Your task to perform on an android device: Search for rayovac triple a on ebay.com, select the first entry, add it to the cart, then select checkout. Image 0: 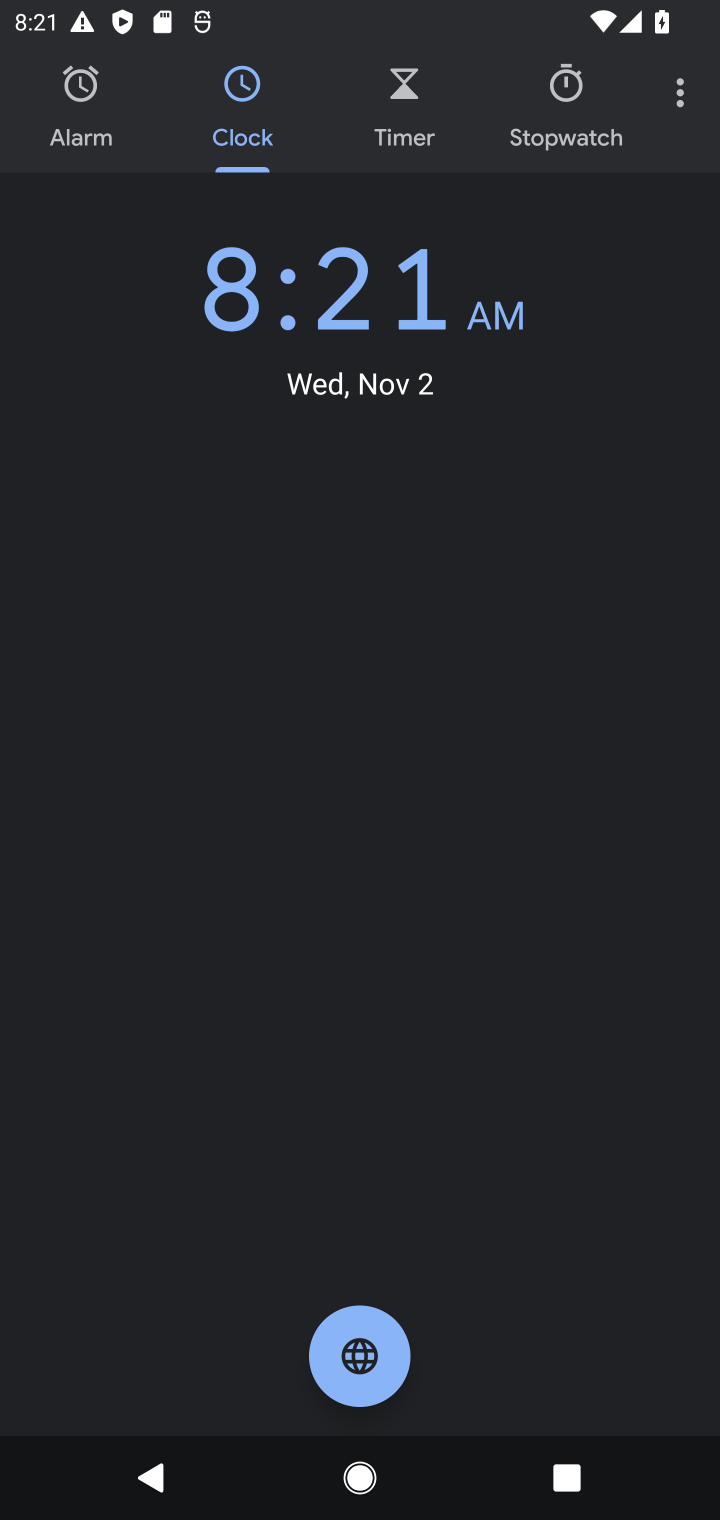
Step 0: press home button
Your task to perform on an android device: Search for rayovac triple a on ebay.com, select the first entry, add it to the cart, then select checkout. Image 1: 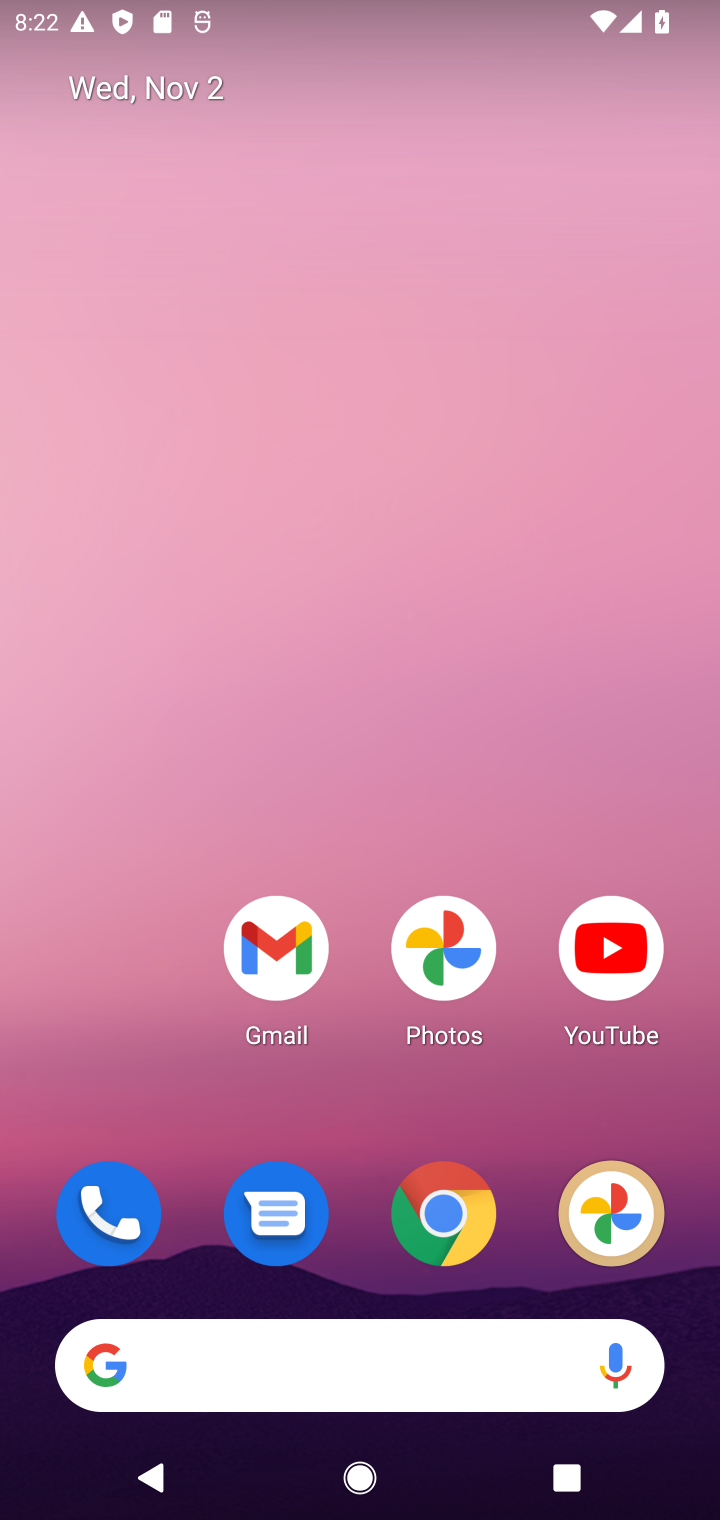
Step 1: click (439, 1225)
Your task to perform on an android device: Search for rayovac triple a on ebay.com, select the first entry, add it to the cart, then select checkout. Image 2: 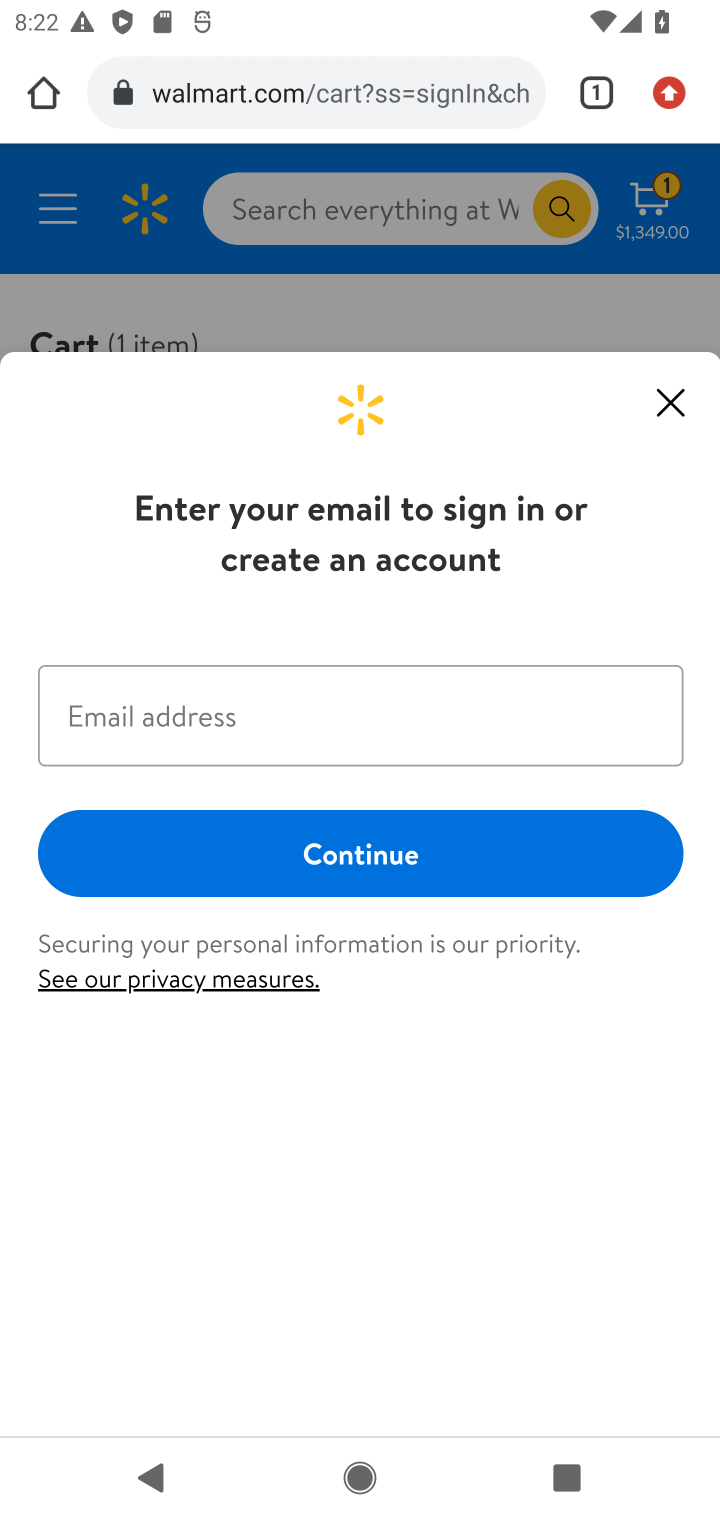
Step 2: click (340, 97)
Your task to perform on an android device: Search for rayovac triple a on ebay.com, select the first entry, add it to the cart, then select checkout. Image 3: 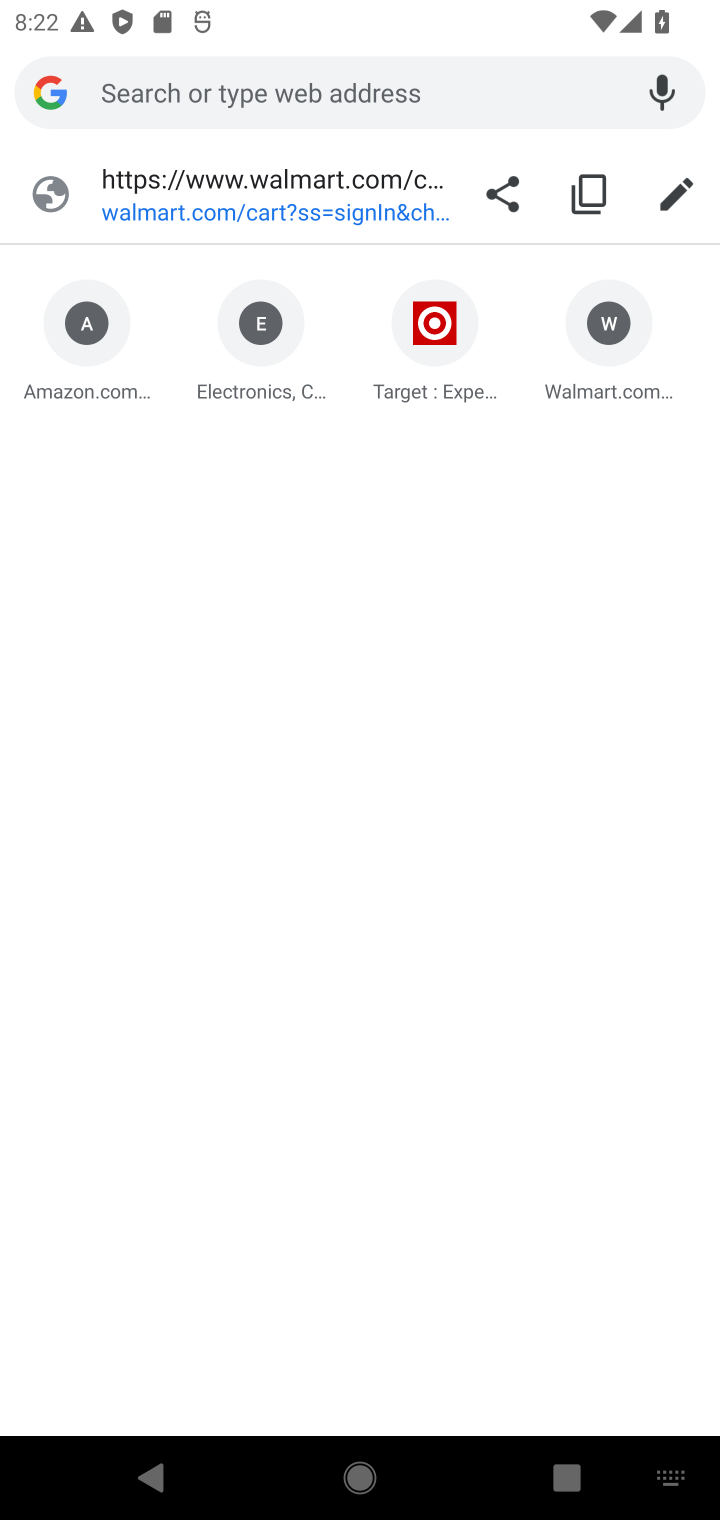
Step 3: type "ebay.com"
Your task to perform on an android device: Search for rayovac triple a on ebay.com, select the first entry, add it to the cart, then select checkout. Image 4: 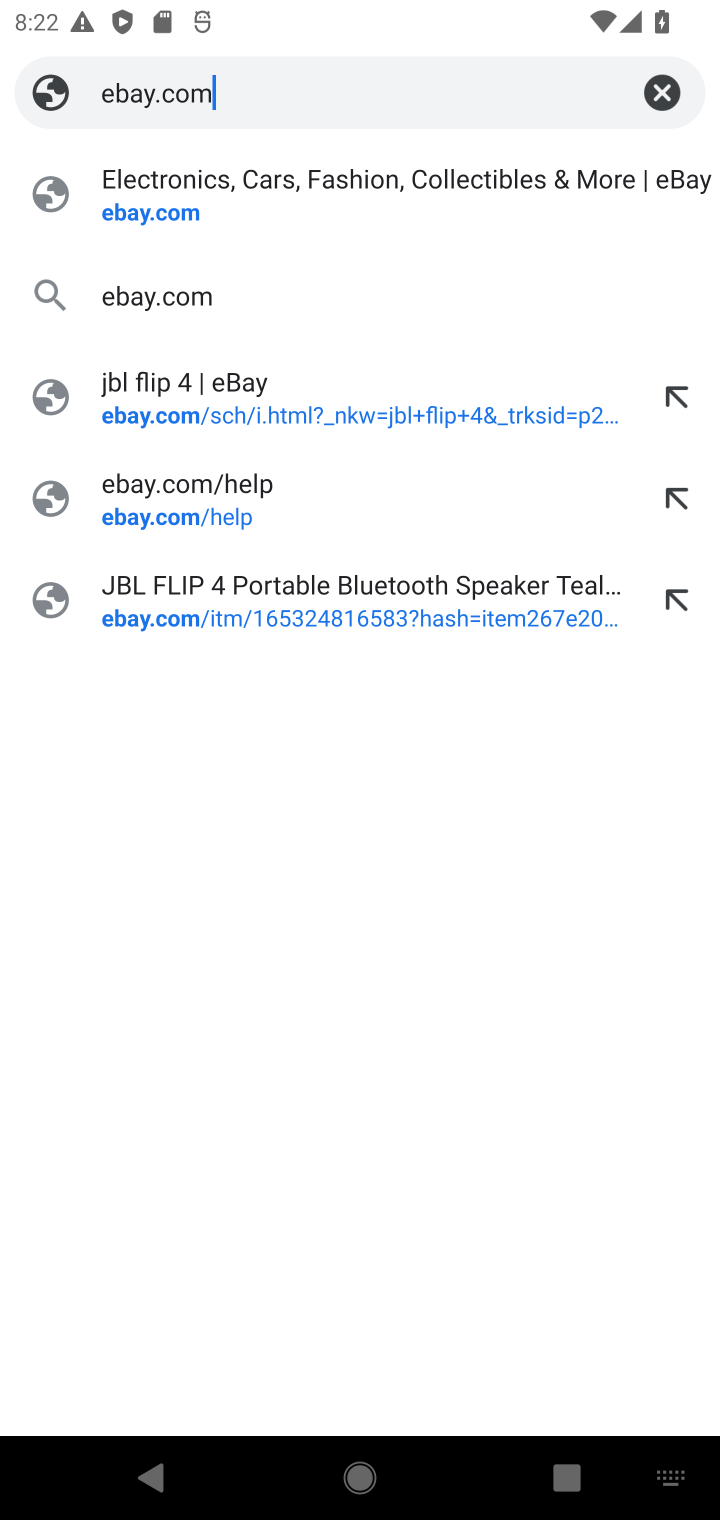
Step 4: click (126, 213)
Your task to perform on an android device: Search for rayovac triple a on ebay.com, select the first entry, add it to the cart, then select checkout. Image 5: 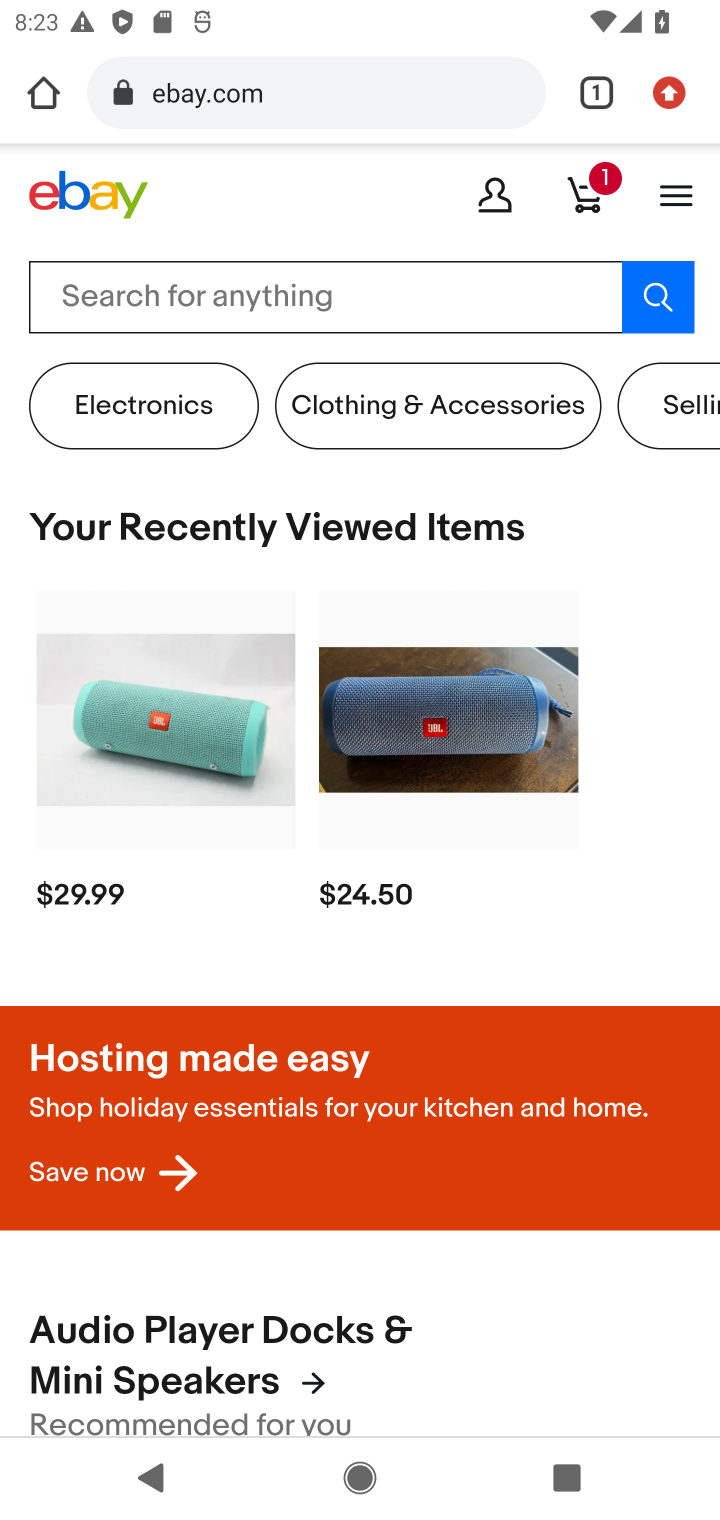
Step 5: click (241, 303)
Your task to perform on an android device: Search for rayovac triple a on ebay.com, select the first entry, add it to the cart, then select checkout. Image 6: 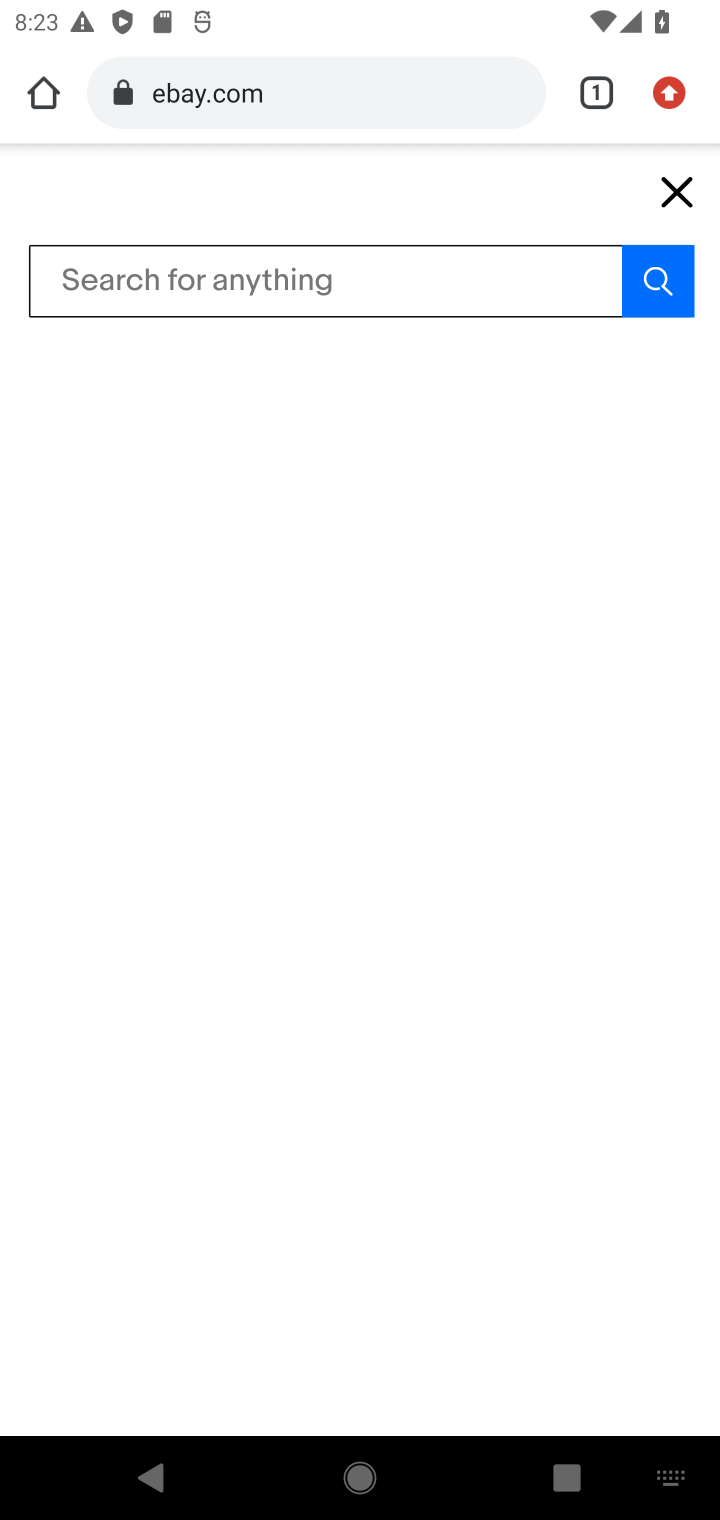
Step 6: type "rayovac triple a "
Your task to perform on an android device: Search for rayovac triple a on ebay.com, select the first entry, add it to the cart, then select checkout. Image 7: 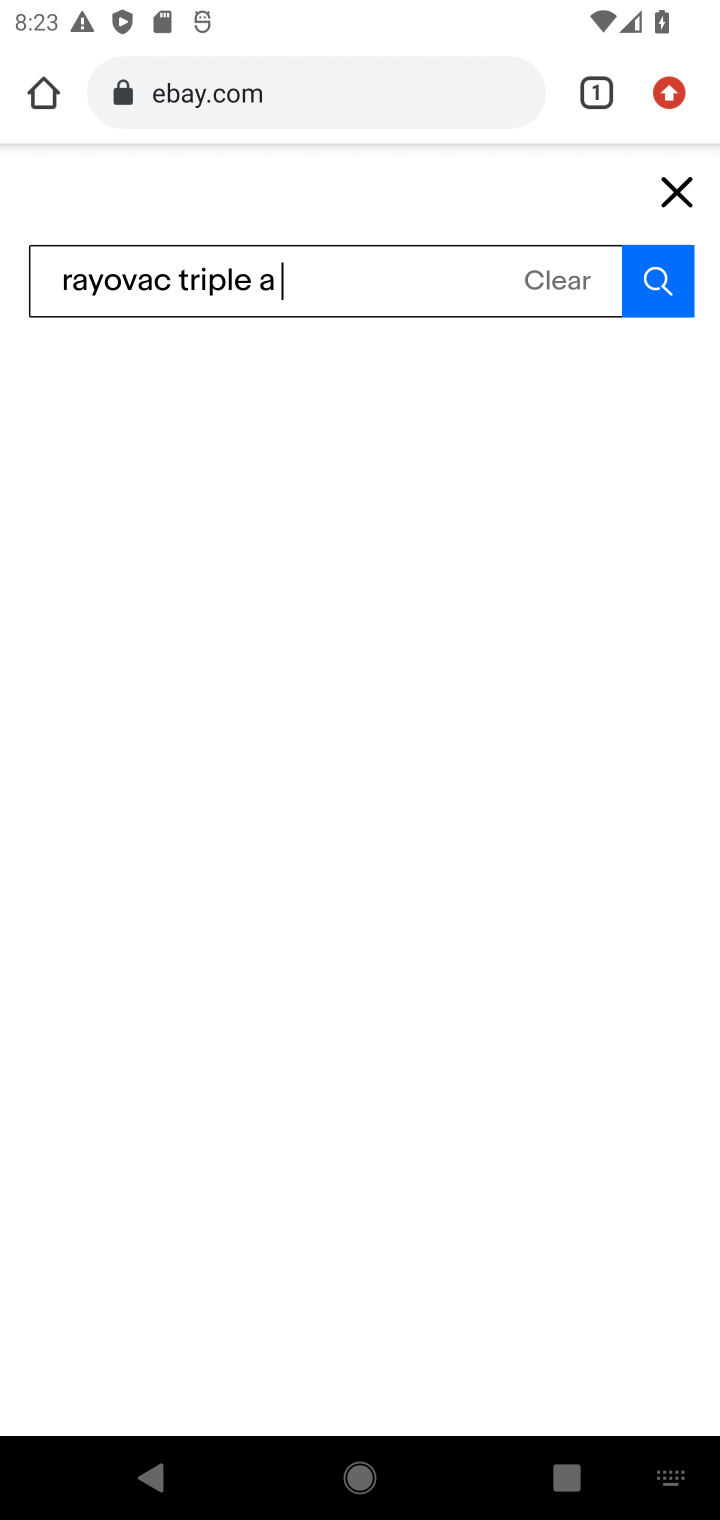
Step 7: click (654, 281)
Your task to perform on an android device: Search for rayovac triple a on ebay.com, select the first entry, add it to the cart, then select checkout. Image 8: 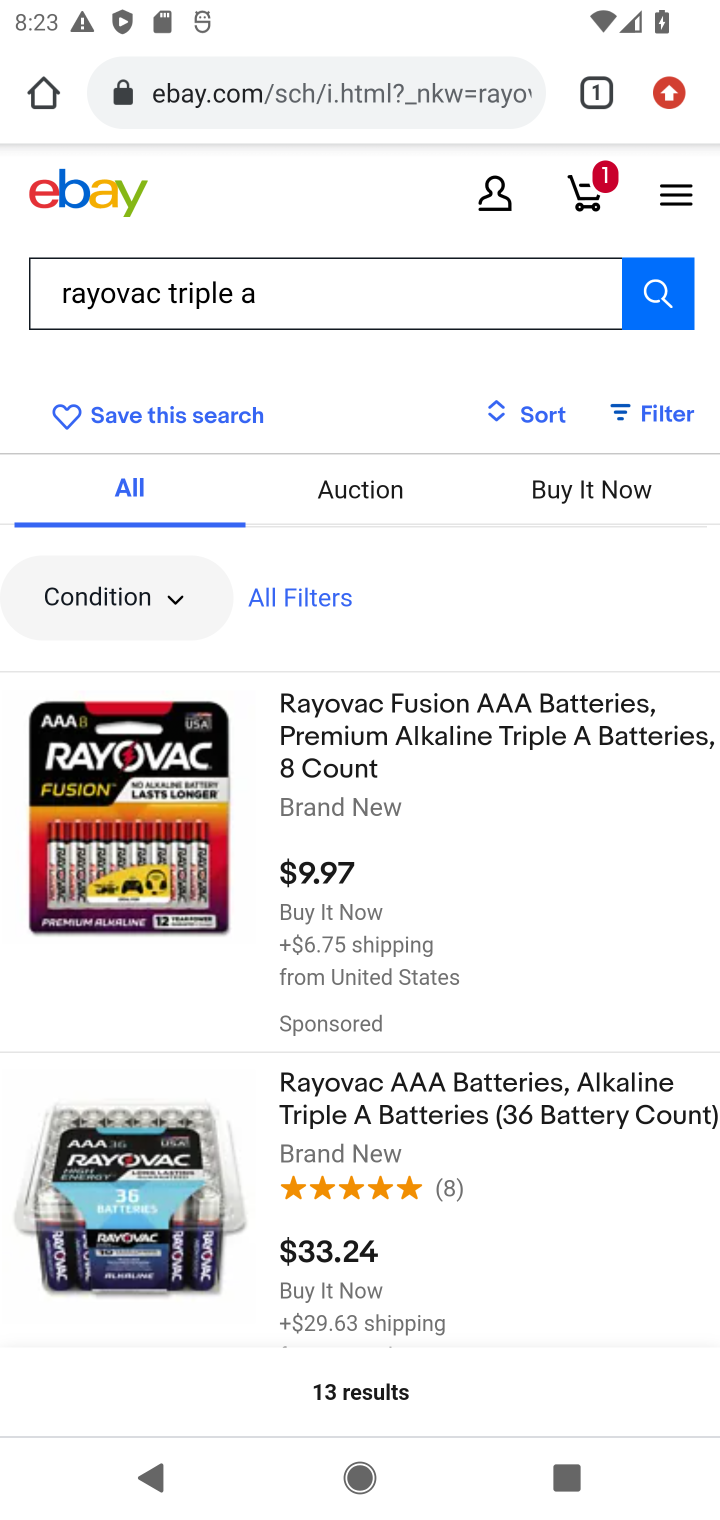
Step 8: click (297, 805)
Your task to perform on an android device: Search for rayovac triple a on ebay.com, select the first entry, add it to the cart, then select checkout. Image 9: 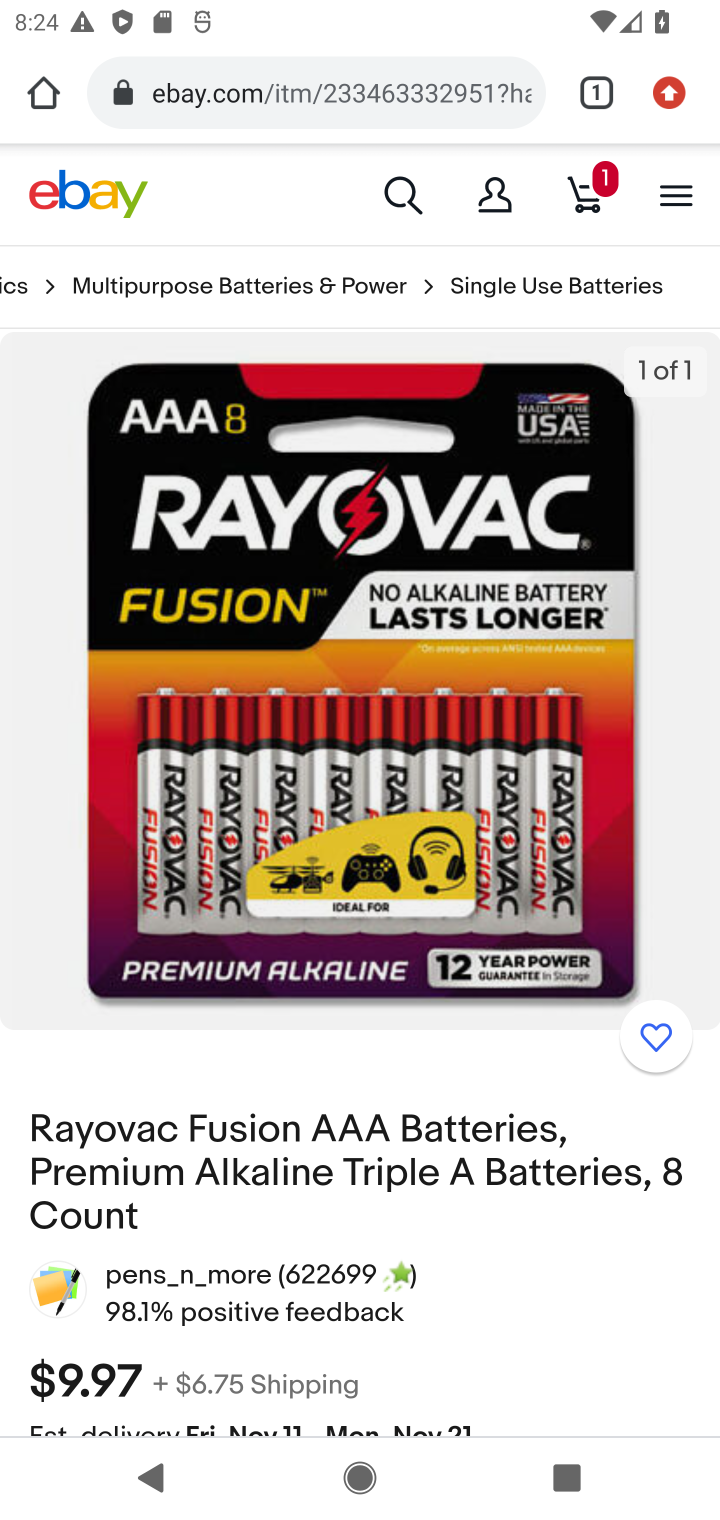
Step 9: drag from (374, 1049) to (386, 478)
Your task to perform on an android device: Search for rayovac triple a on ebay.com, select the first entry, add it to the cart, then select checkout. Image 10: 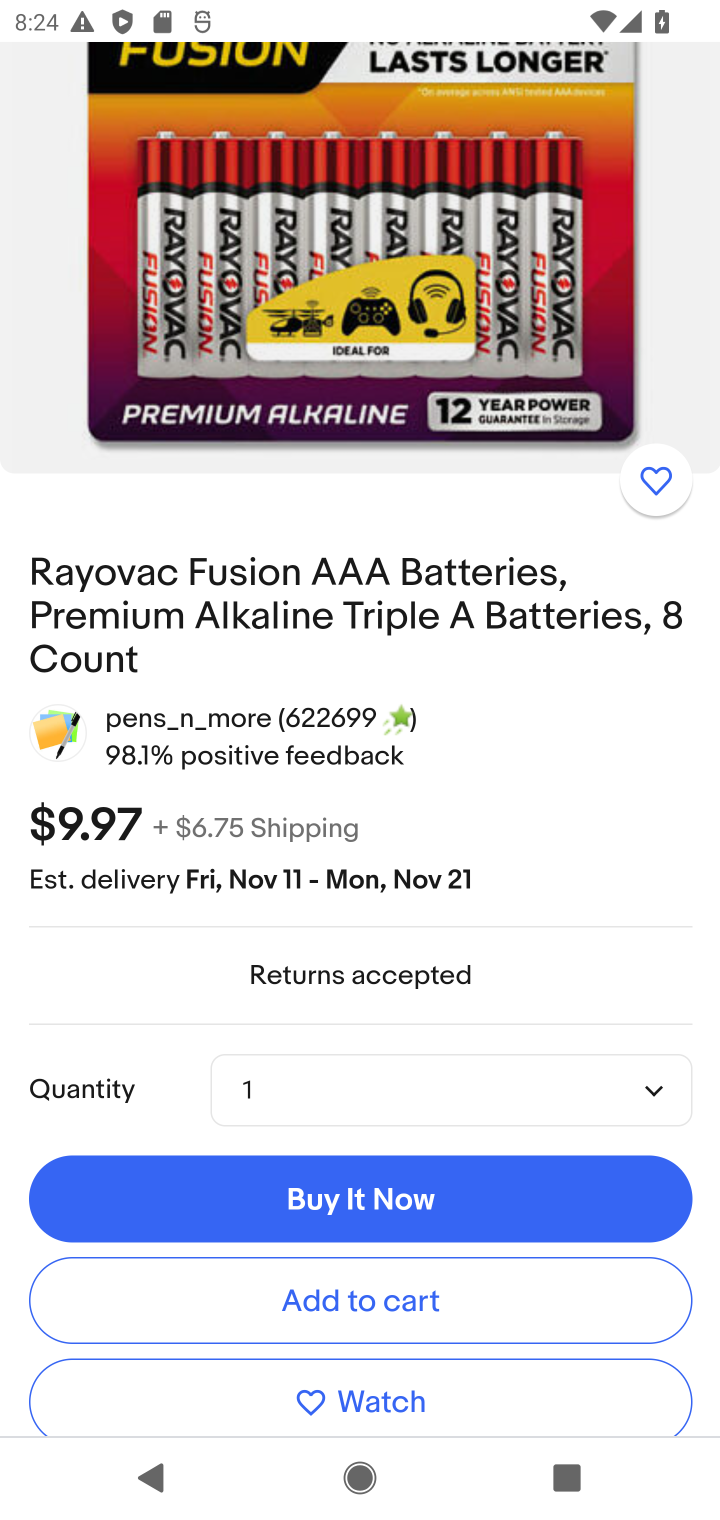
Step 10: drag from (376, 1053) to (400, 795)
Your task to perform on an android device: Search for rayovac triple a on ebay.com, select the first entry, add it to the cart, then select checkout. Image 11: 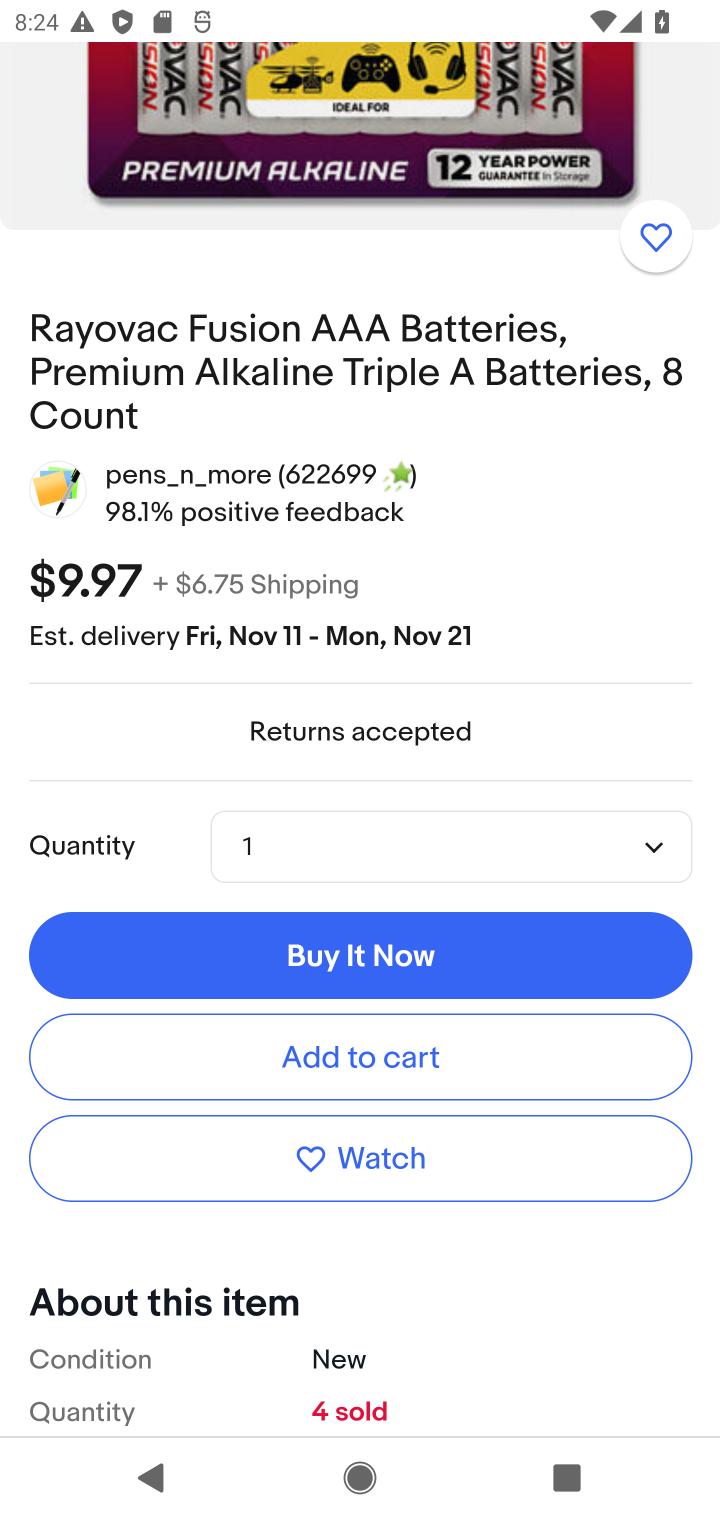
Step 11: click (374, 1067)
Your task to perform on an android device: Search for rayovac triple a on ebay.com, select the first entry, add it to the cart, then select checkout. Image 12: 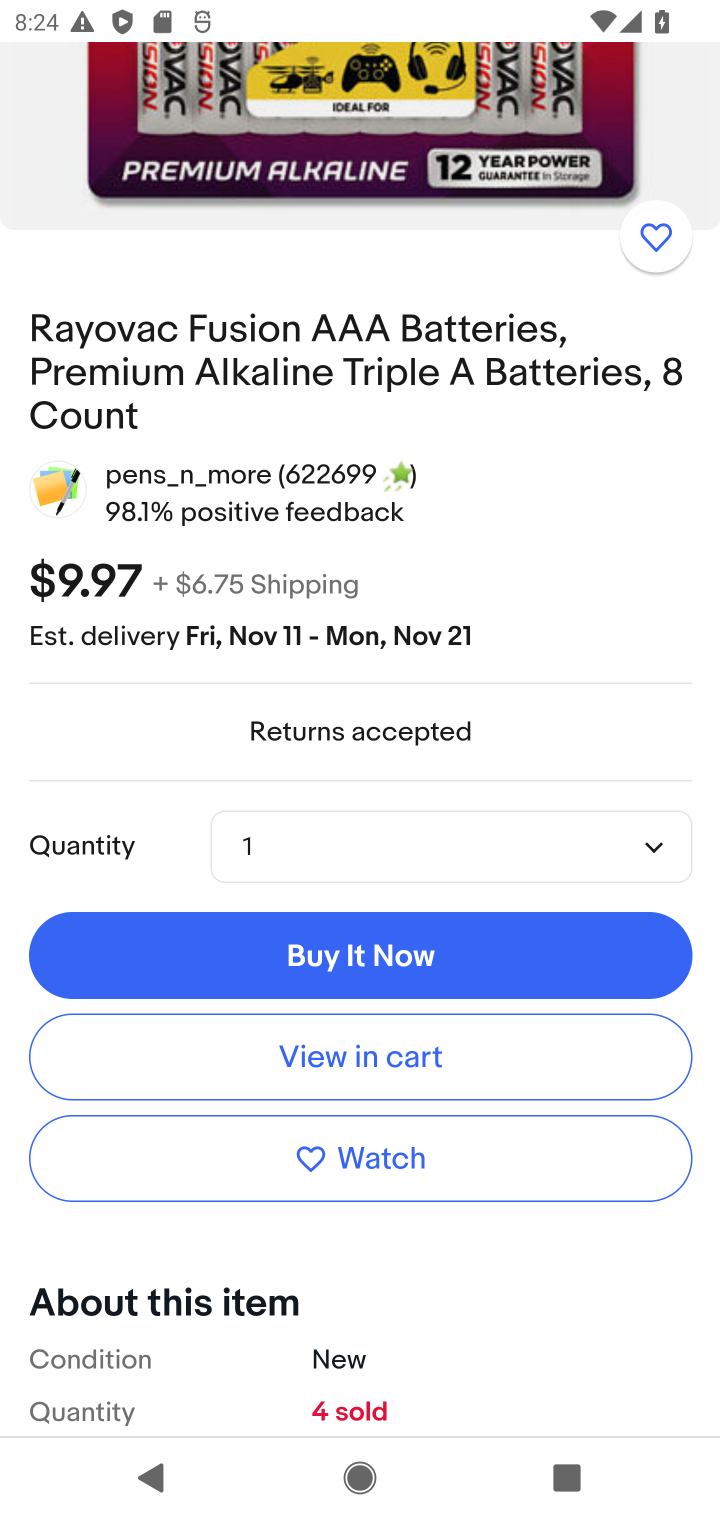
Step 12: click (374, 1067)
Your task to perform on an android device: Search for rayovac triple a on ebay.com, select the first entry, add it to the cart, then select checkout. Image 13: 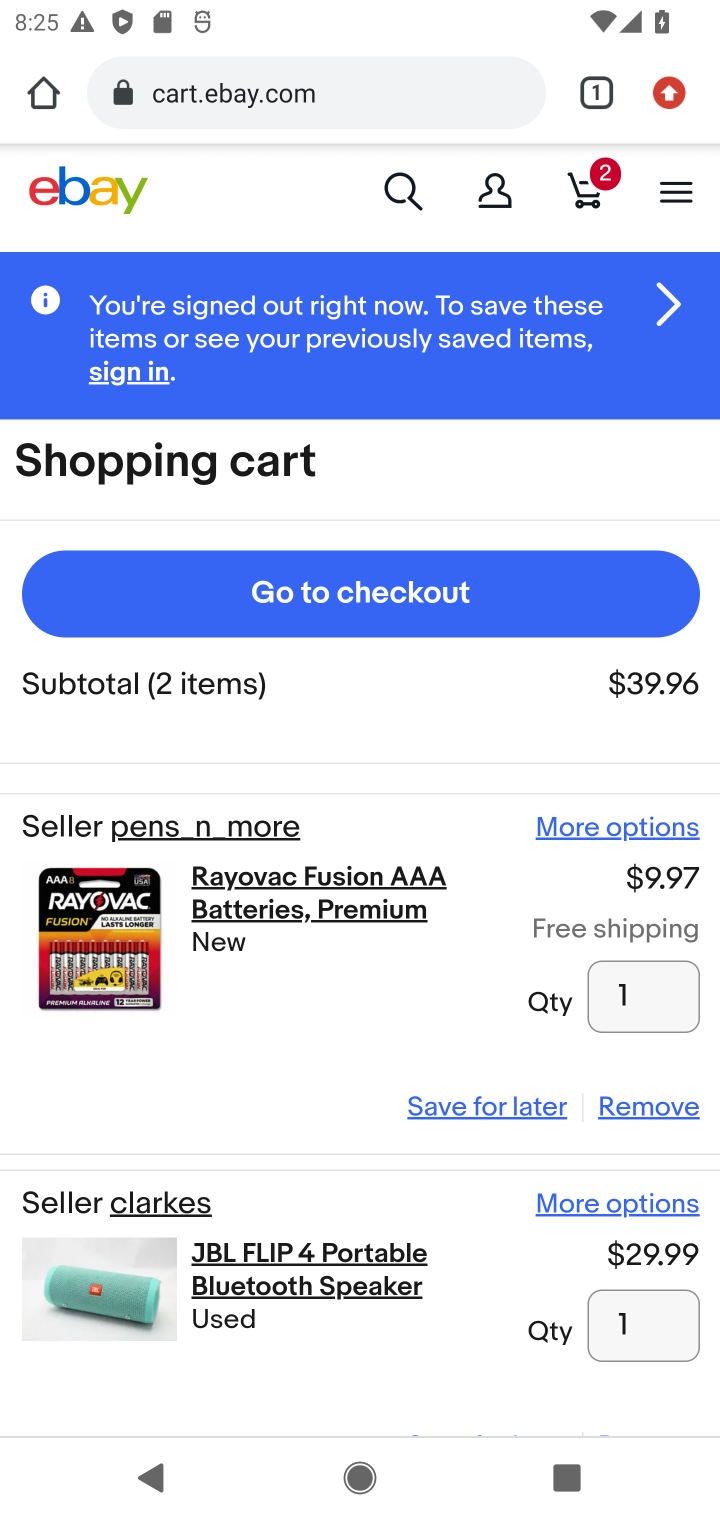
Step 13: click (310, 608)
Your task to perform on an android device: Search for rayovac triple a on ebay.com, select the first entry, add it to the cart, then select checkout. Image 14: 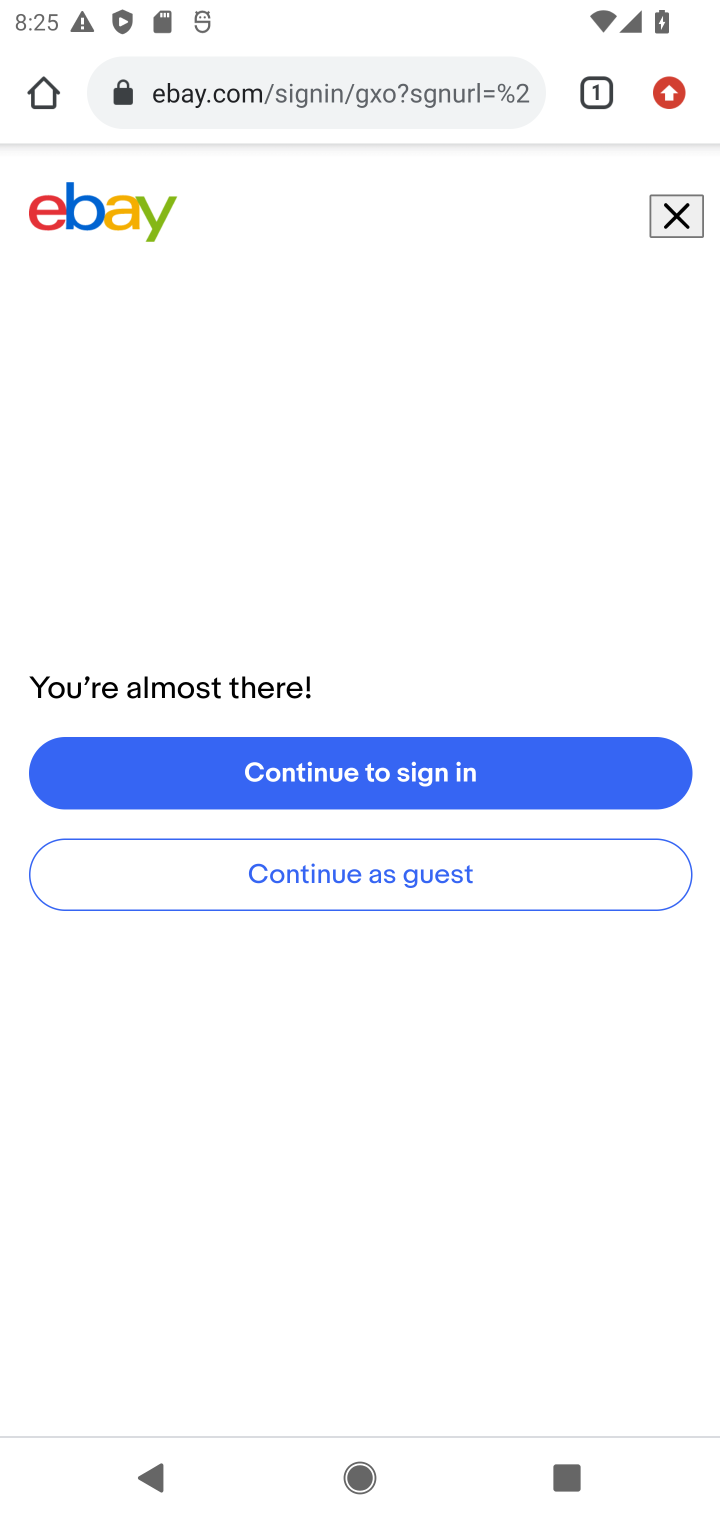
Step 14: task complete